Your task to perform on an android device: Open Google Maps and go to "Timeline" Image 0: 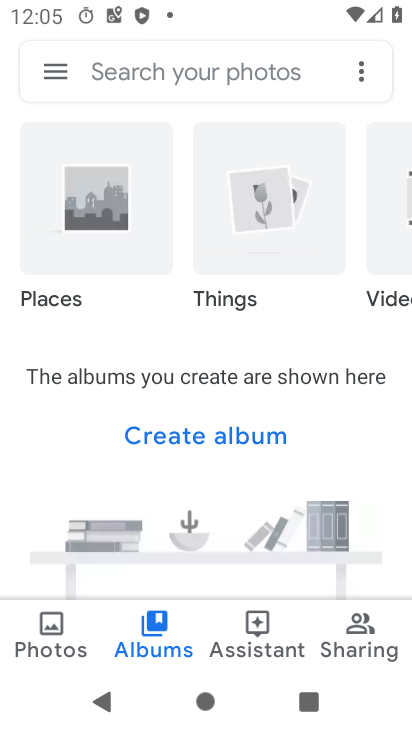
Step 0: press home button
Your task to perform on an android device: Open Google Maps and go to "Timeline" Image 1: 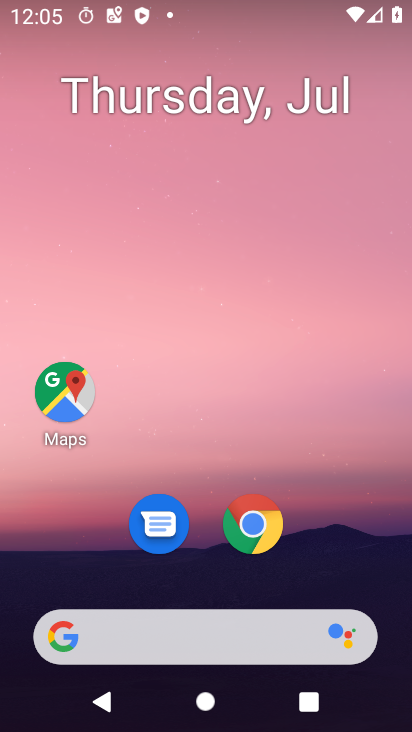
Step 1: click (68, 396)
Your task to perform on an android device: Open Google Maps and go to "Timeline" Image 2: 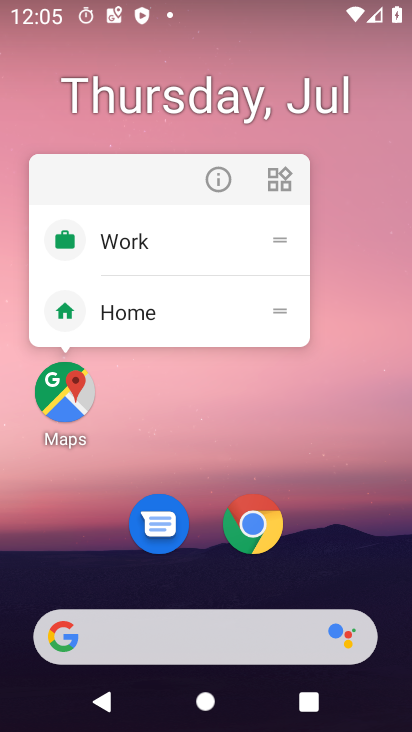
Step 2: click (58, 400)
Your task to perform on an android device: Open Google Maps and go to "Timeline" Image 3: 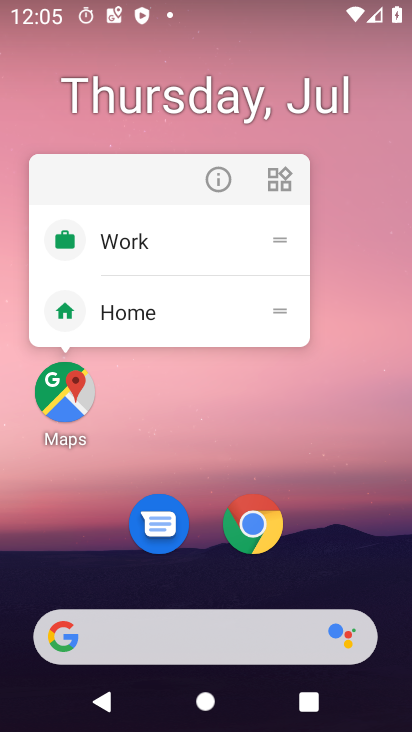
Step 3: click (65, 393)
Your task to perform on an android device: Open Google Maps and go to "Timeline" Image 4: 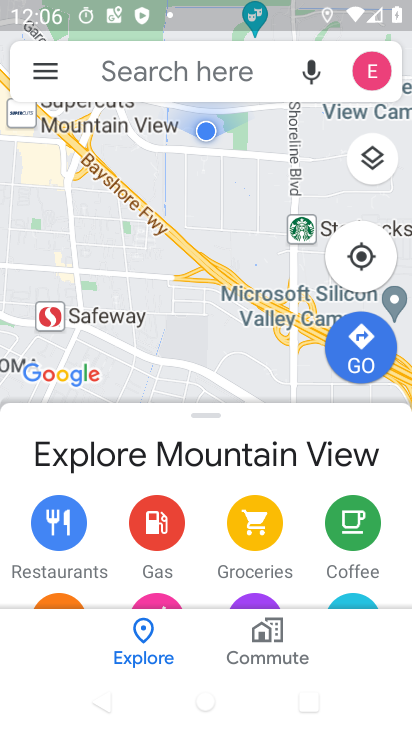
Step 4: click (54, 70)
Your task to perform on an android device: Open Google Maps and go to "Timeline" Image 5: 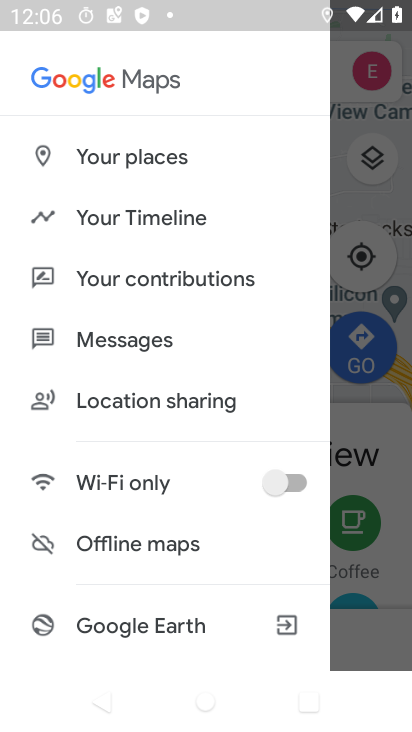
Step 5: click (141, 219)
Your task to perform on an android device: Open Google Maps and go to "Timeline" Image 6: 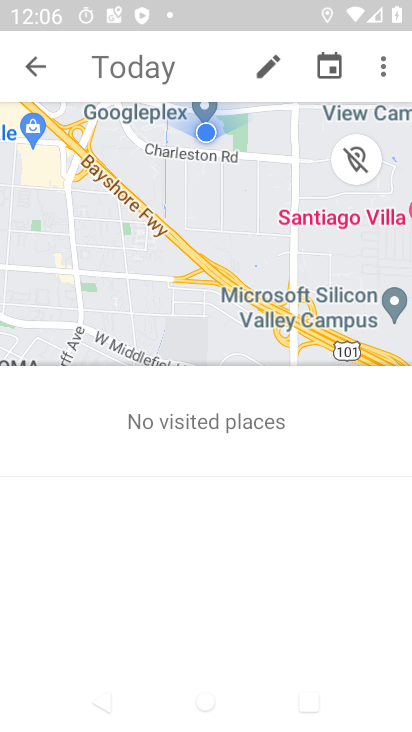
Step 6: task complete